Your task to perform on an android device: Go to accessibility settings Image 0: 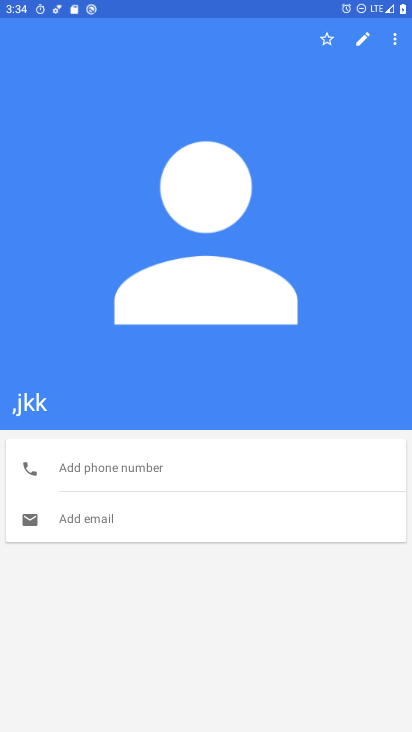
Step 0: press home button
Your task to perform on an android device: Go to accessibility settings Image 1: 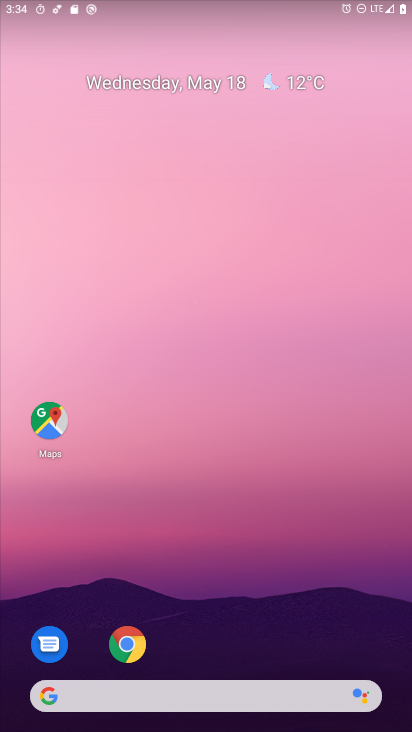
Step 1: click (386, 319)
Your task to perform on an android device: Go to accessibility settings Image 2: 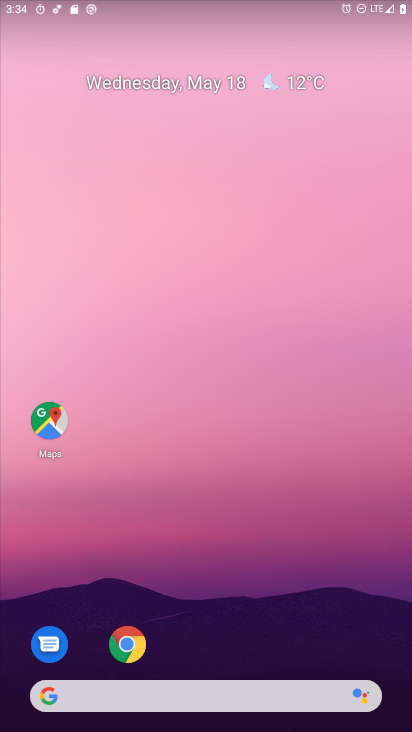
Step 2: drag from (396, 517) to (411, 298)
Your task to perform on an android device: Go to accessibility settings Image 3: 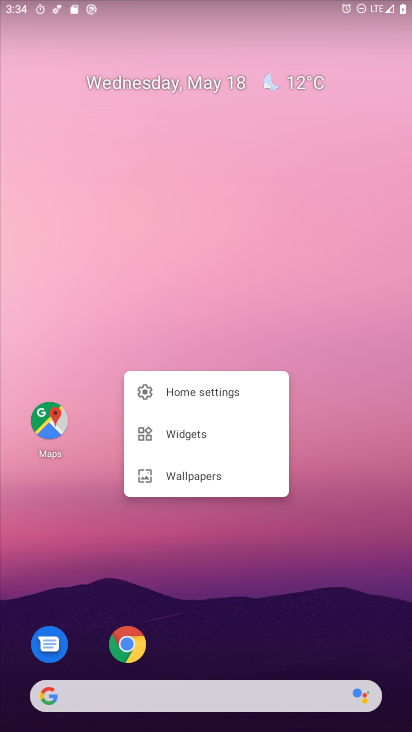
Step 3: drag from (407, 663) to (411, 103)
Your task to perform on an android device: Go to accessibility settings Image 4: 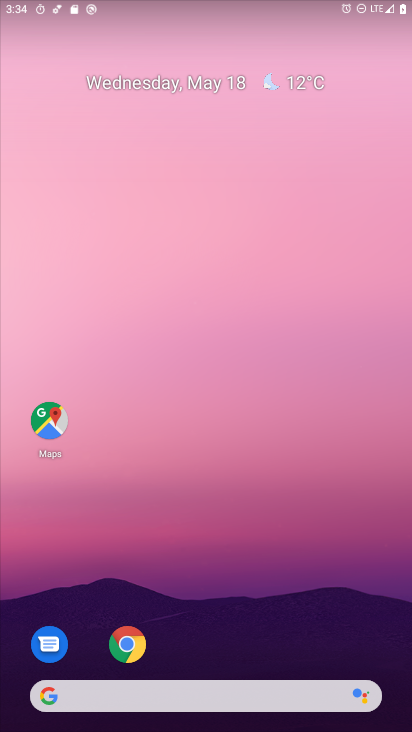
Step 4: drag from (396, 701) to (406, 117)
Your task to perform on an android device: Go to accessibility settings Image 5: 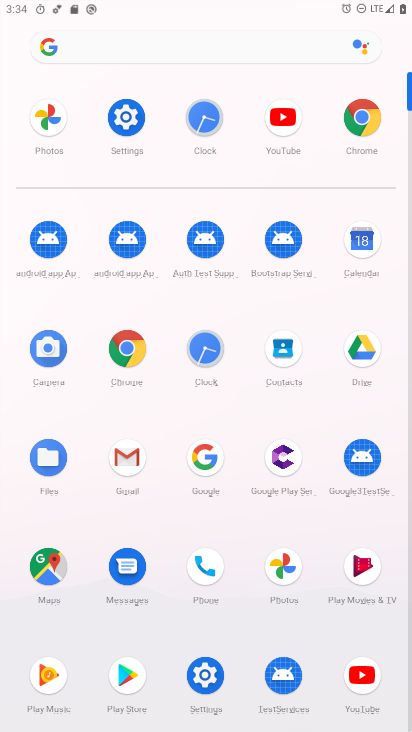
Step 5: click (129, 107)
Your task to perform on an android device: Go to accessibility settings Image 6: 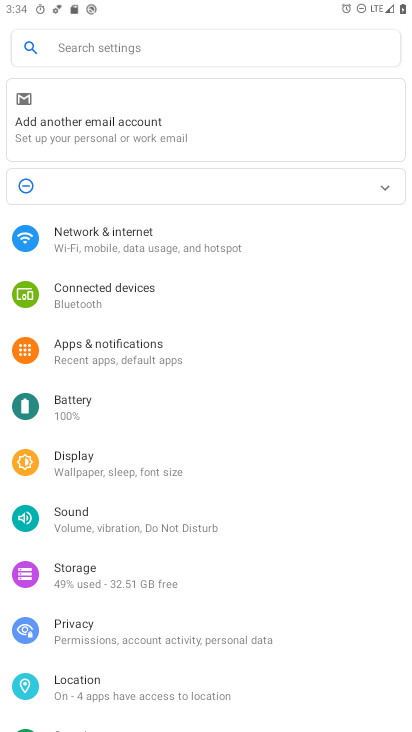
Step 6: drag from (321, 673) to (349, 356)
Your task to perform on an android device: Go to accessibility settings Image 7: 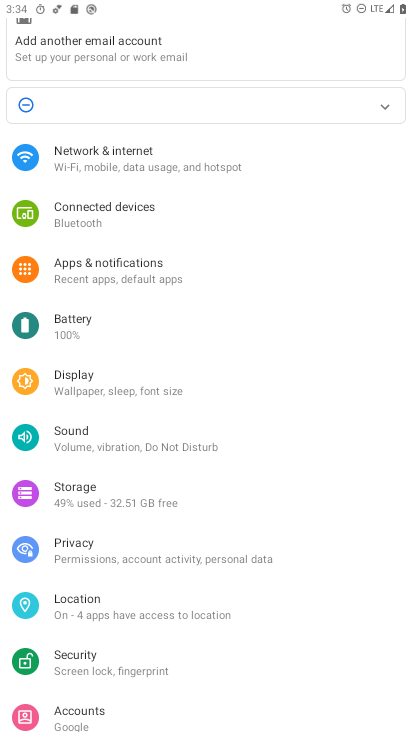
Step 7: drag from (316, 690) to (336, 324)
Your task to perform on an android device: Go to accessibility settings Image 8: 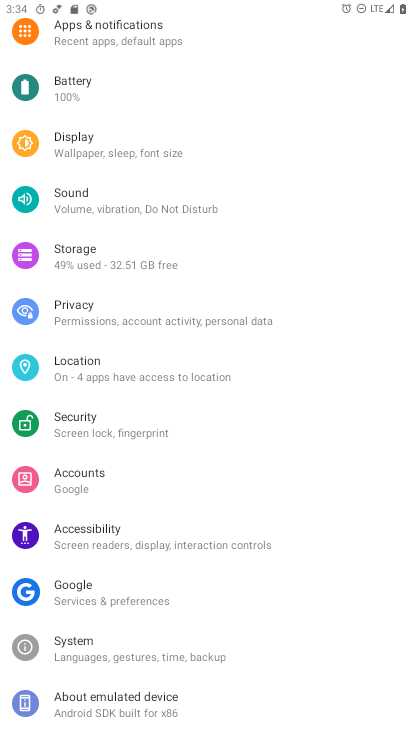
Step 8: click (64, 536)
Your task to perform on an android device: Go to accessibility settings Image 9: 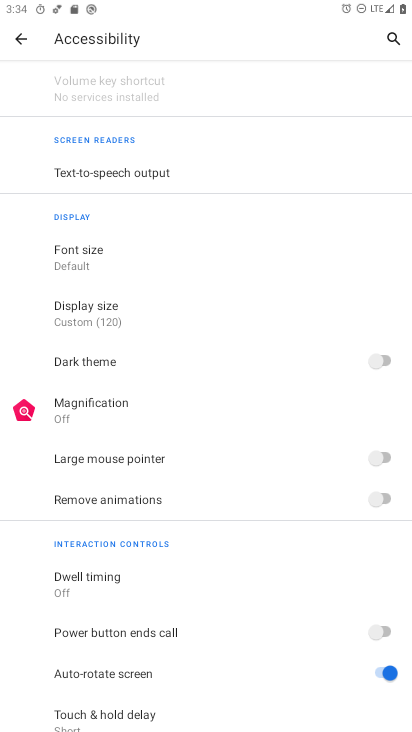
Step 9: task complete